Your task to perform on an android device: set an alarm Image 0: 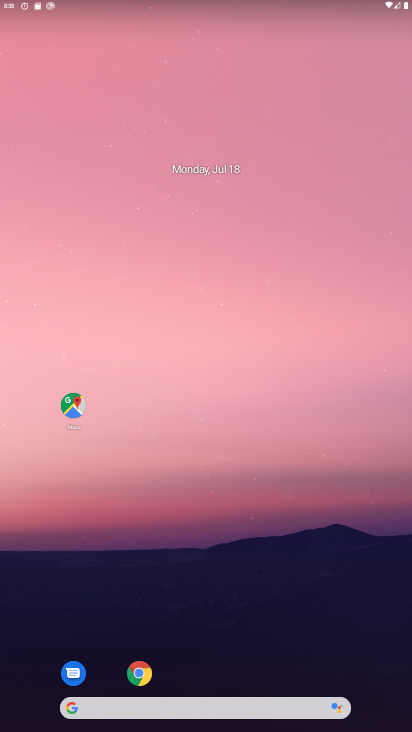
Step 0: drag from (192, 664) to (180, 338)
Your task to perform on an android device: set an alarm Image 1: 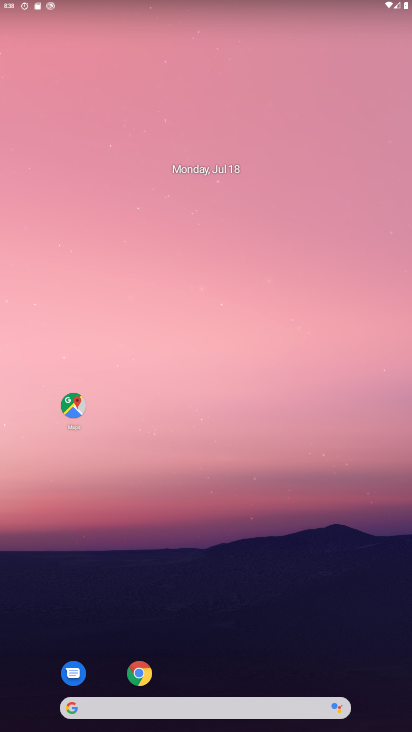
Step 1: drag from (172, 626) to (119, 321)
Your task to perform on an android device: set an alarm Image 2: 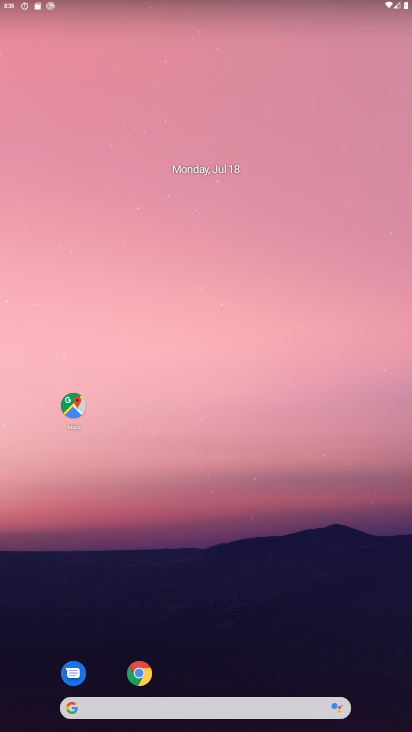
Step 2: drag from (184, 289) to (219, 8)
Your task to perform on an android device: set an alarm Image 3: 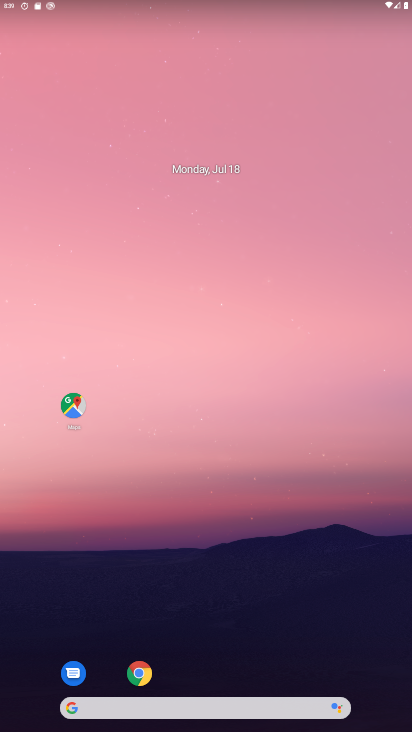
Step 3: drag from (207, 526) to (168, 173)
Your task to perform on an android device: set an alarm Image 4: 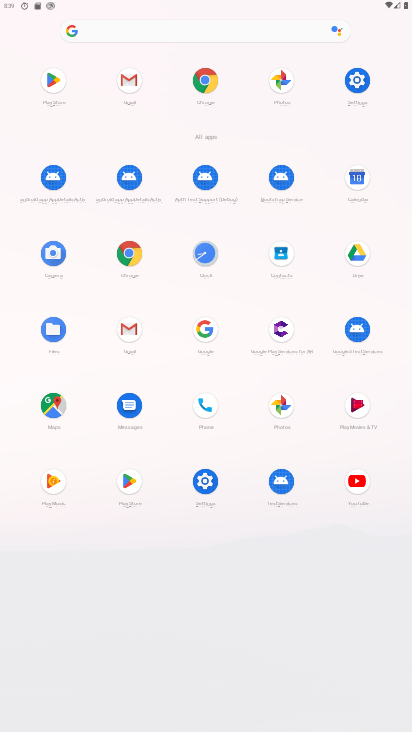
Step 4: click (198, 250)
Your task to perform on an android device: set an alarm Image 5: 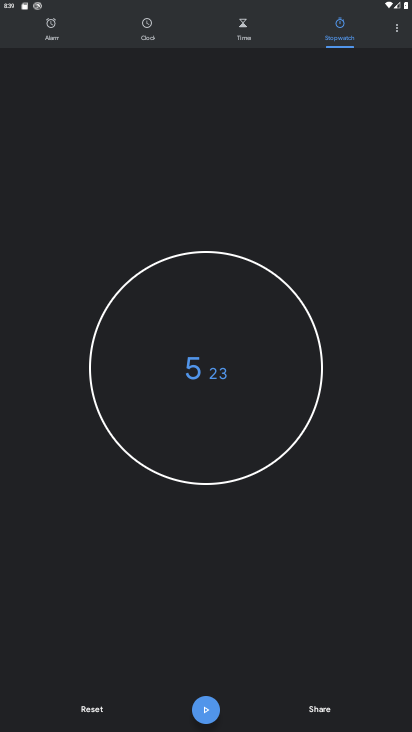
Step 5: click (68, 33)
Your task to perform on an android device: set an alarm Image 6: 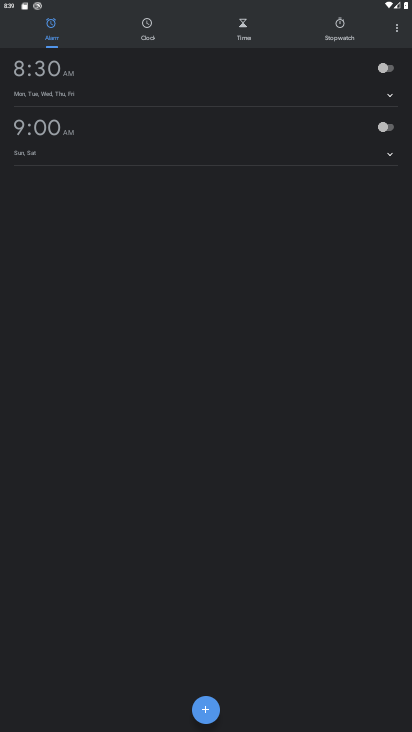
Step 6: click (396, 74)
Your task to perform on an android device: set an alarm Image 7: 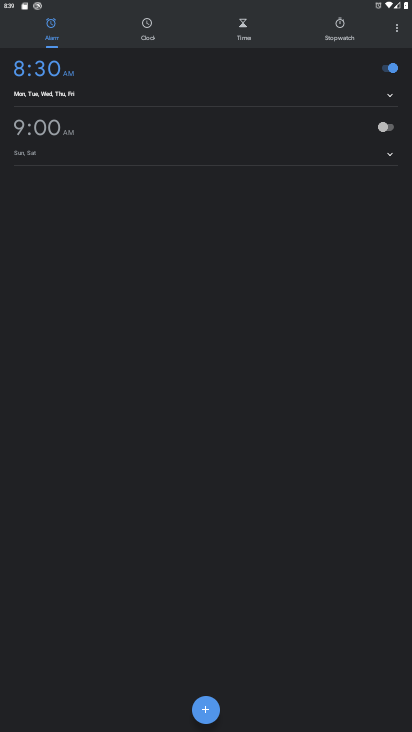
Step 7: task complete